Your task to perform on an android device: What's the weather going to be tomorrow? Image 0: 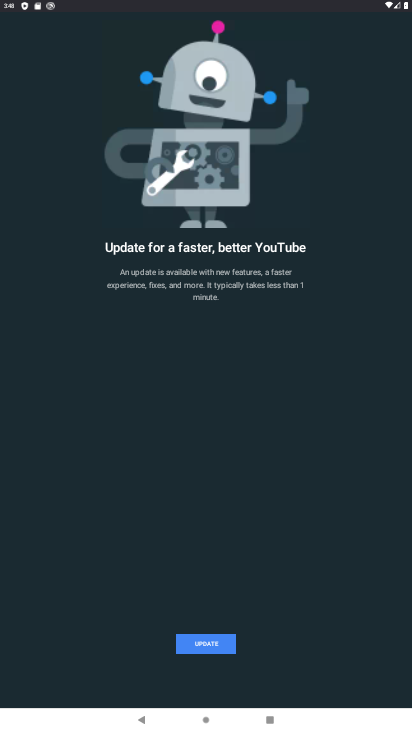
Step 0: press home button
Your task to perform on an android device: What's the weather going to be tomorrow? Image 1: 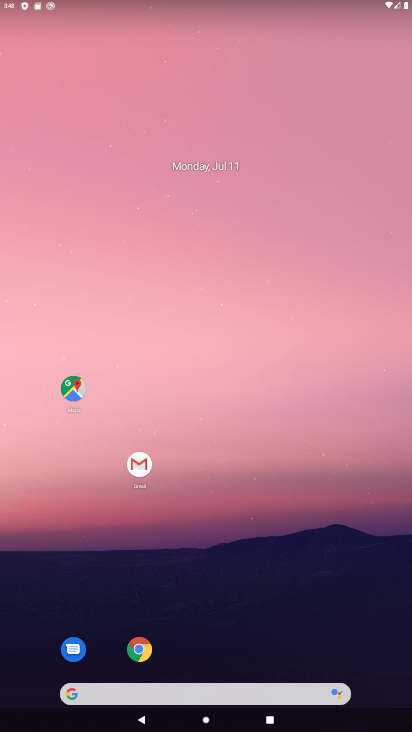
Step 1: click (144, 689)
Your task to perform on an android device: What's the weather going to be tomorrow? Image 2: 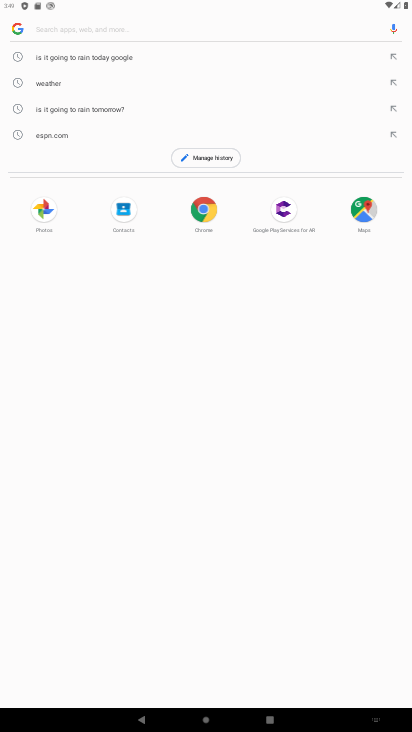
Step 2: type "What's the weather going to be tomorrow?"
Your task to perform on an android device: What's the weather going to be tomorrow? Image 3: 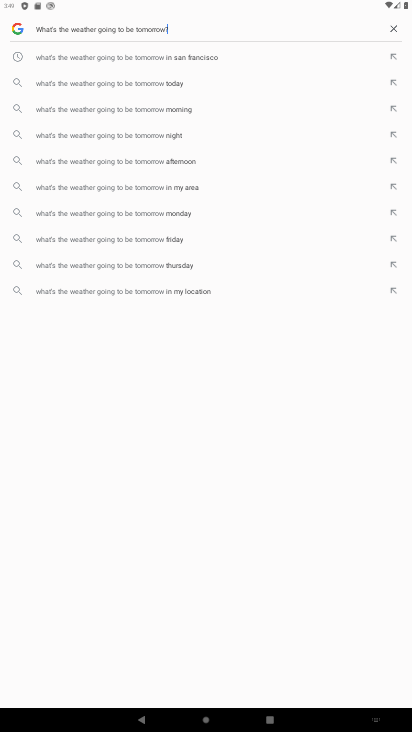
Step 3: type ""
Your task to perform on an android device: What's the weather going to be tomorrow? Image 4: 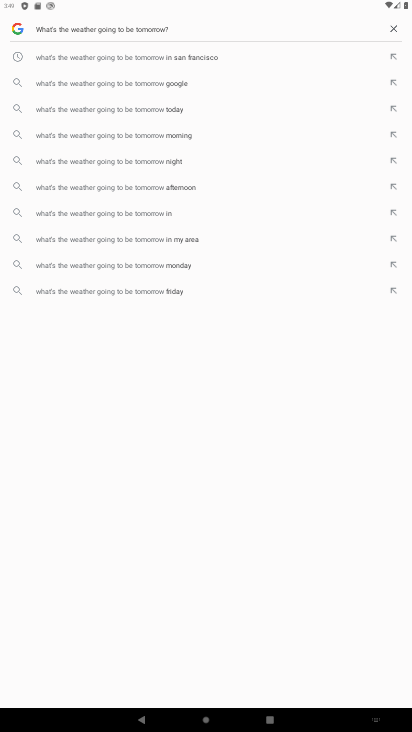
Step 4: type "  "
Your task to perform on an android device: What's the weather going to be tomorrow? Image 5: 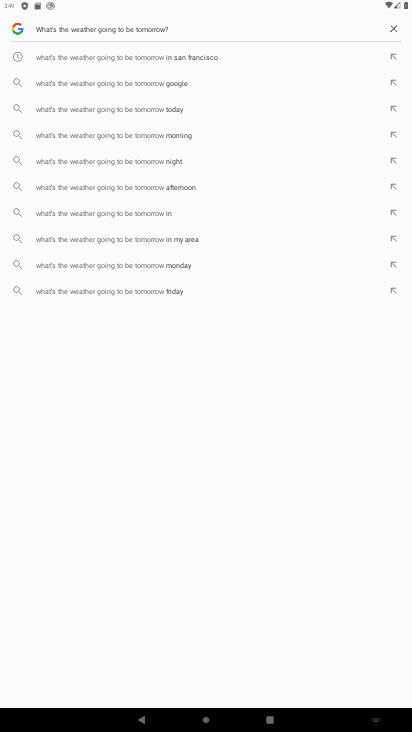
Step 5: task complete